Your task to perform on an android device: turn off picture-in-picture Image 0: 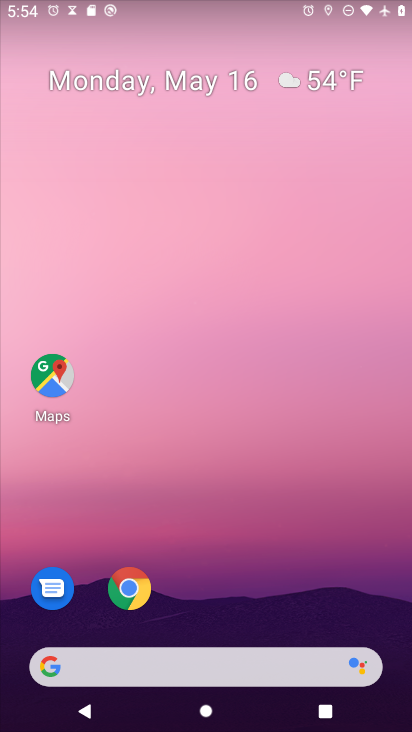
Step 0: drag from (248, 503) to (245, 131)
Your task to perform on an android device: turn off picture-in-picture Image 1: 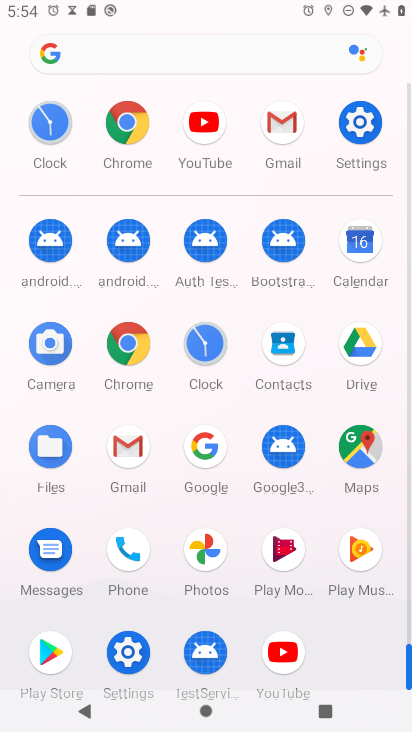
Step 1: drag from (7, 480) to (26, 176)
Your task to perform on an android device: turn off picture-in-picture Image 2: 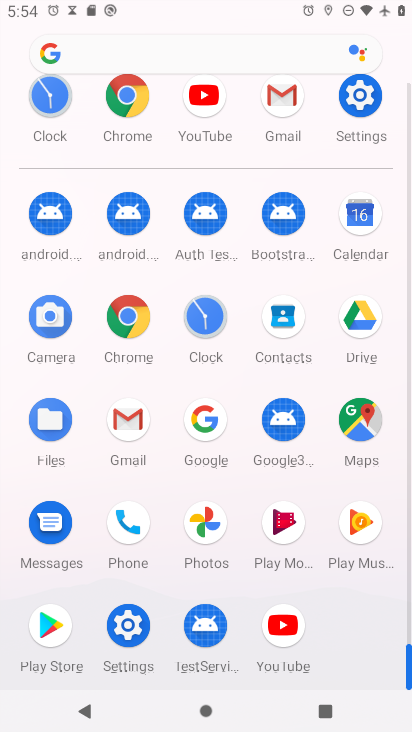
Step 2: click (125, 622)
Your task to perform on an android device: turn off picture-in-picture Image 3: 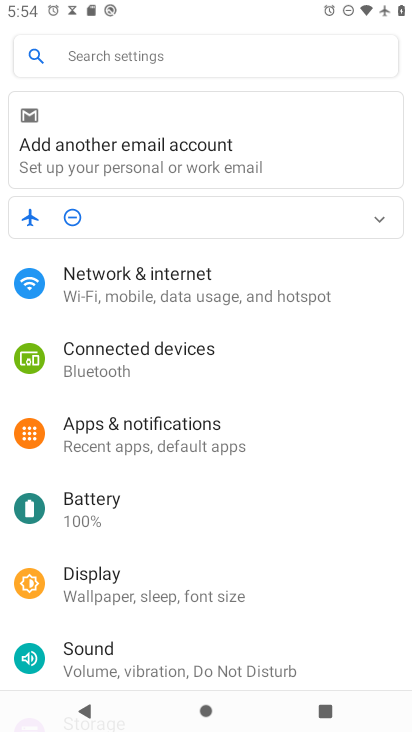
Step 3: click (166, 428)
Your task to perform on an android device: turn off picture-in-picture Image 4: 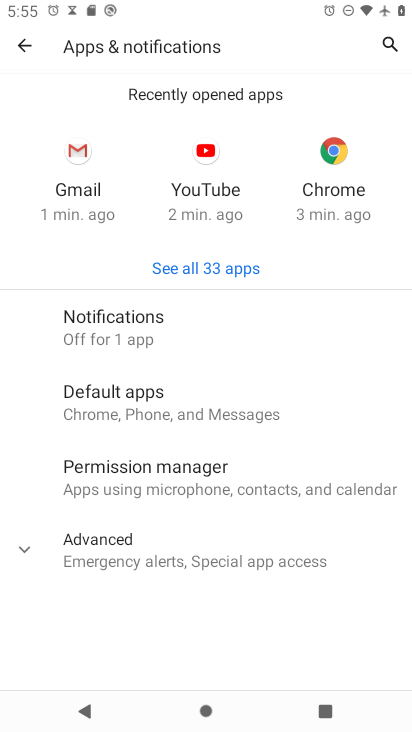
Step 4: click (61, 529)
Your task to perform on an android device: turn off picture-in-picture Image 5: 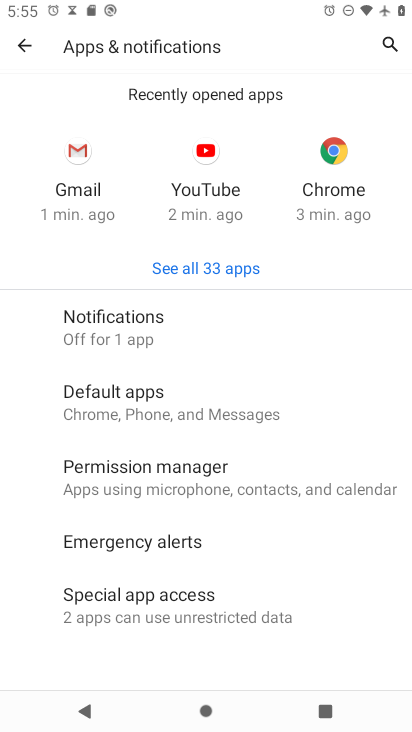
Step 5: drag from (284, 555) to (291, 259)
Your task to perform on an android device: turn off picture-in-picture Image 6: 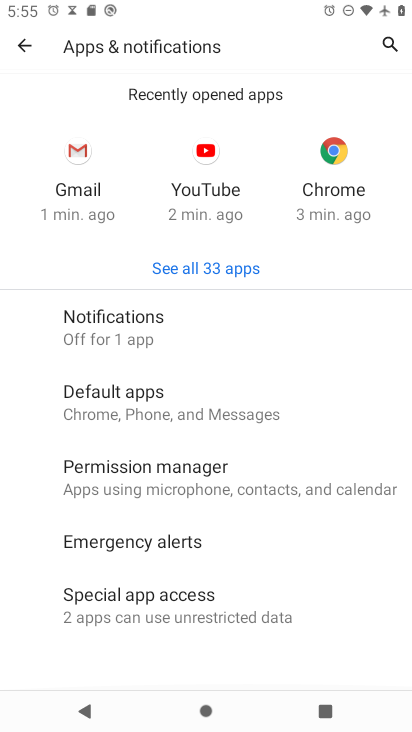
Step 6: click (171, 318)
Your task to perform on an android device: turn off picture-in-picture Image 7: 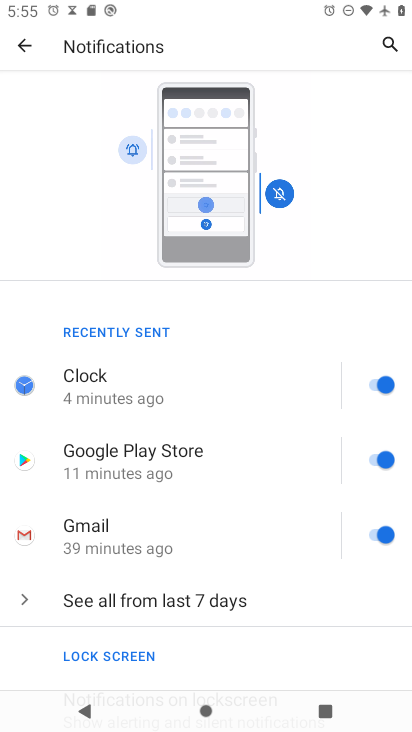
Step 7: click (22, 45)
Your task to perform on an android device: turn off picture-in-picture Image 8: 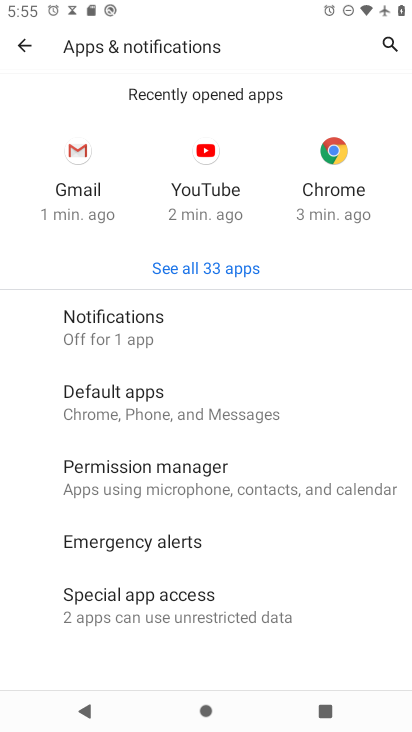
Step 8: click (142, 592)
Your task to perform on an android device: turn off picture-in-picture Image 9: 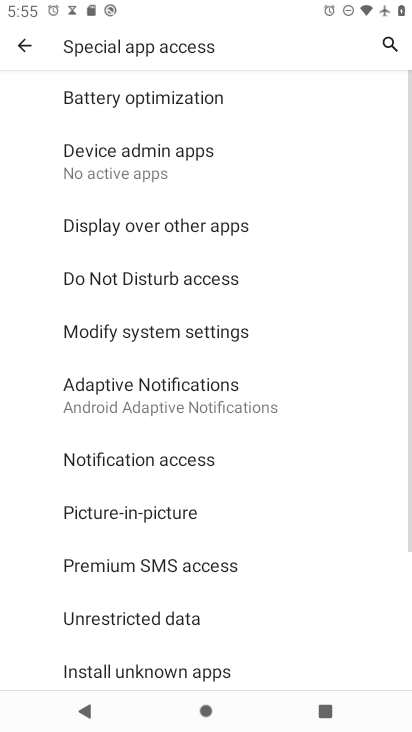
Step 9: click (185, 517)
Your task to perform on an android device: turn off picture-in-picture Image 10: 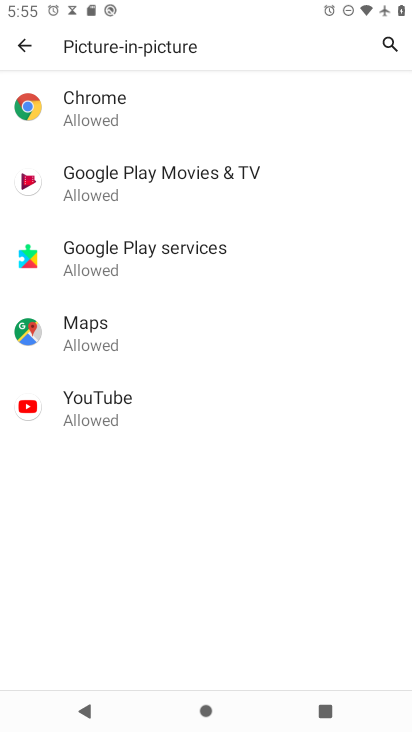
Step 10: click (155, 92)
Your task to perform on an android device: turn off picture-in-picture Image 11: 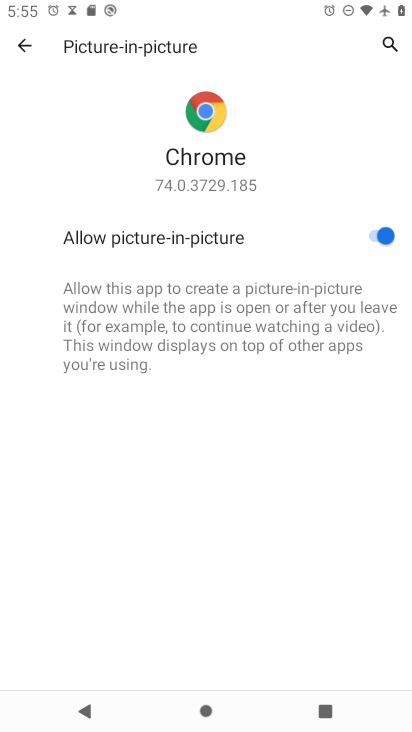
Step 11: click (382, 231)
Your task to perform on an android device: turn off picture-in-picture Image 12: 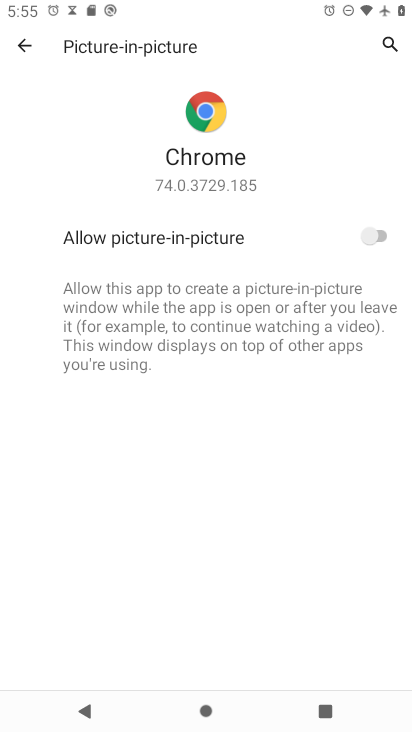
Step 12: click (23, 55)
Your task to perform on an android device: turn off picture-in-picture Image 13: 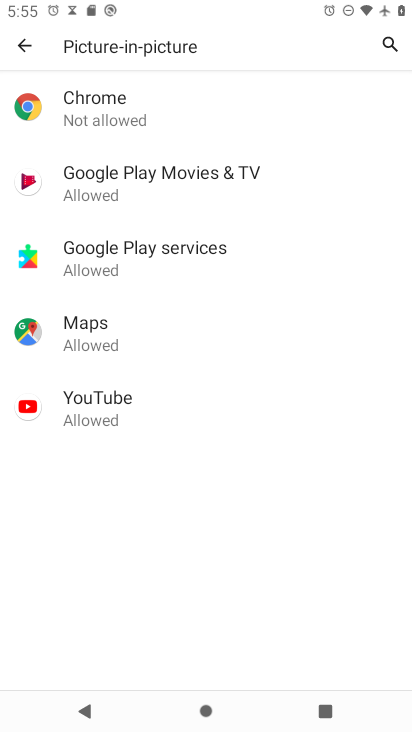
Step 13: click (128, 196)
Your task to perform on an android device: turn off picture-in-picture Image 14: 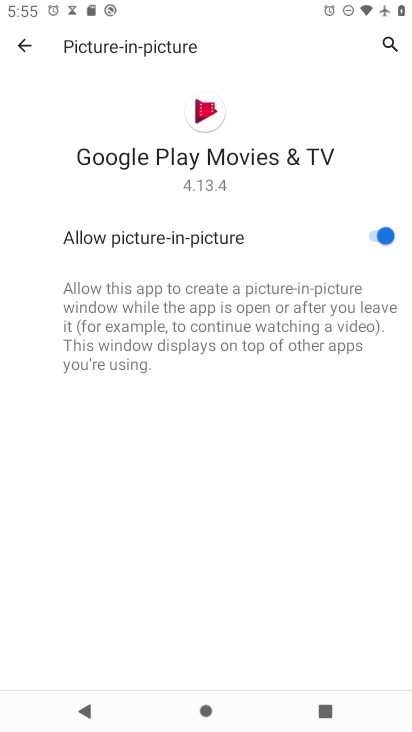
Step 14: click (367, 232)
Your task to perform on an android device: turn off picture-in-picture Image 15: 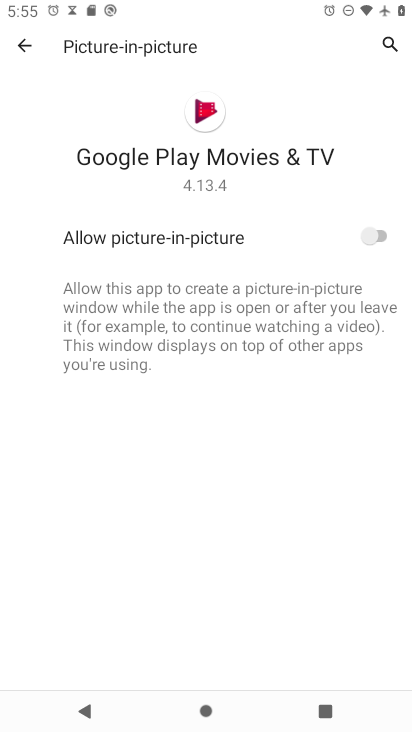
Step 15: click (26, 48)
Your task to perform on an android device: turn off picture-in-picture Image 16: 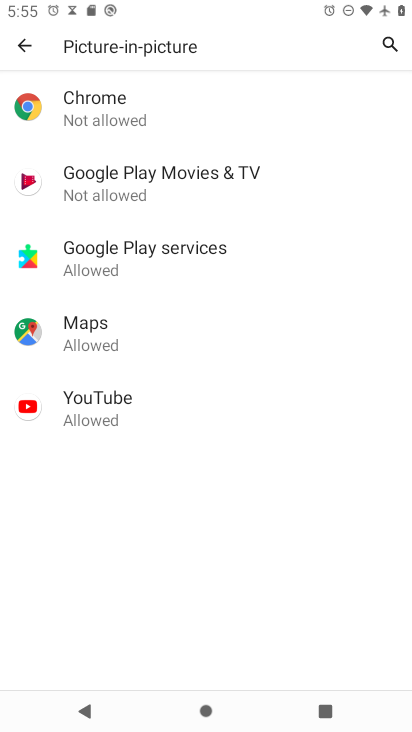
Step 16: click (95, 267)
Your task to perform on an android device: turn off picture-in-picture Image 17: 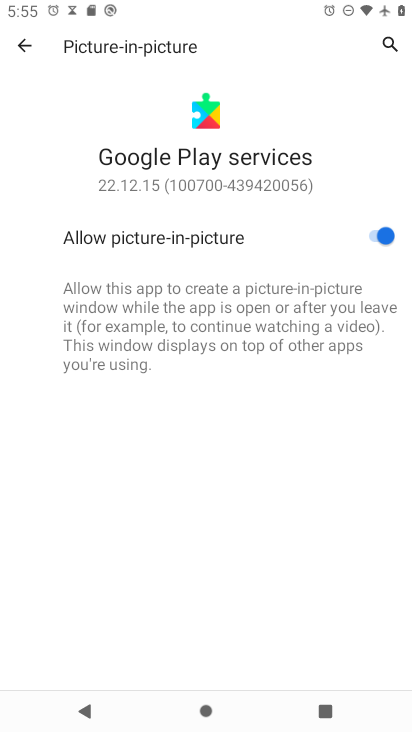
Step 17: click (377, 232)
Your task to perform on an android device: turn off picture-in-picture Image 18: 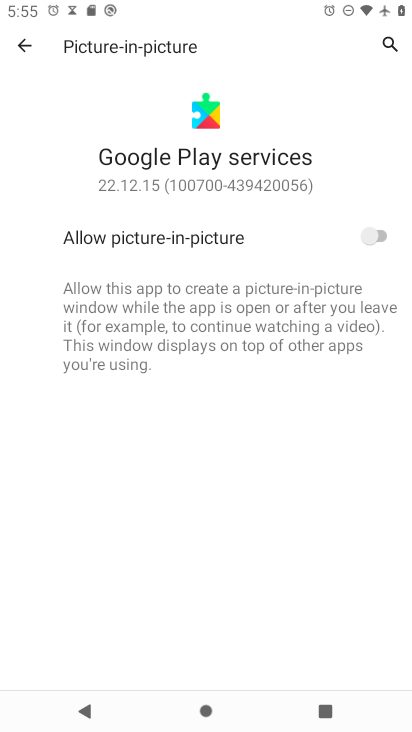
Step 18: click (20, 50)
Your task to perform on an android device: turn off picture-in-picture Image 19: 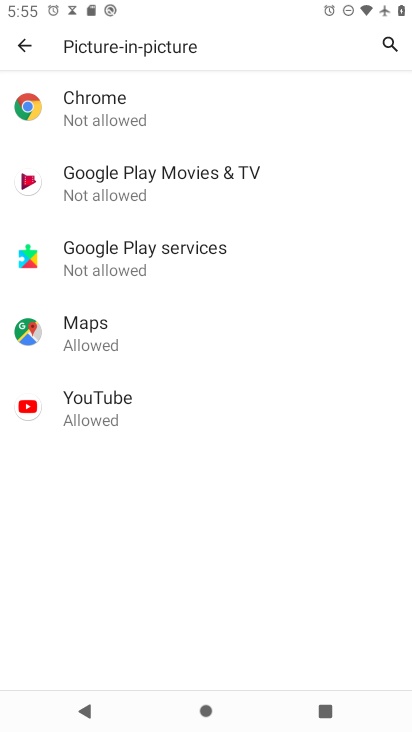
Step 19: click (60, 325)
Your task to perform on an android device: turn off picture-in-picture Image 20: 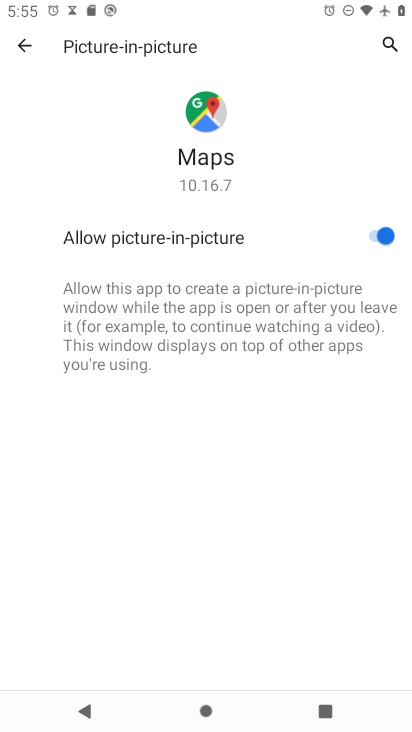
Step 20: click (370, 236)
Your task to perform on an android device: turn off picture-in-picture Image 21: 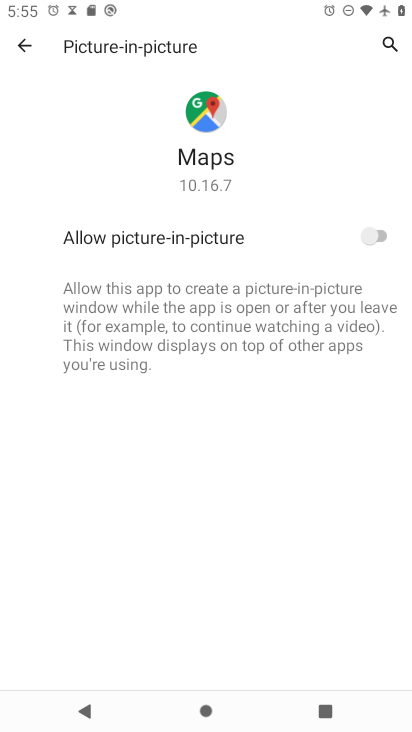
Step 21: click (23, 35)
Your task to perform on an android device: turn off picture-in-picture Image 22: 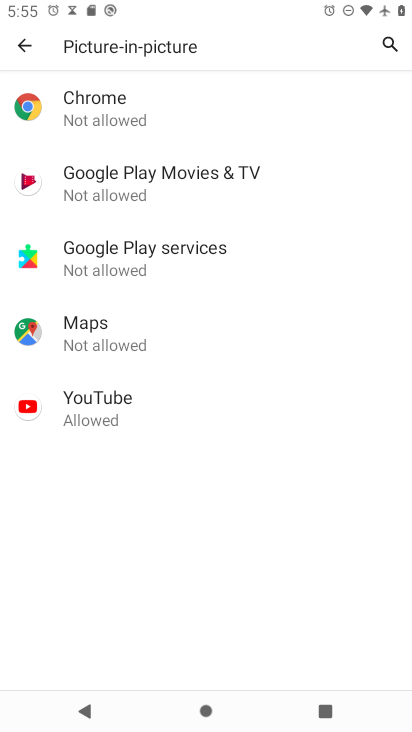
Step 22: click (68, 402)
Your task to perform on an android device: turn off picture-in-picture Image 23: 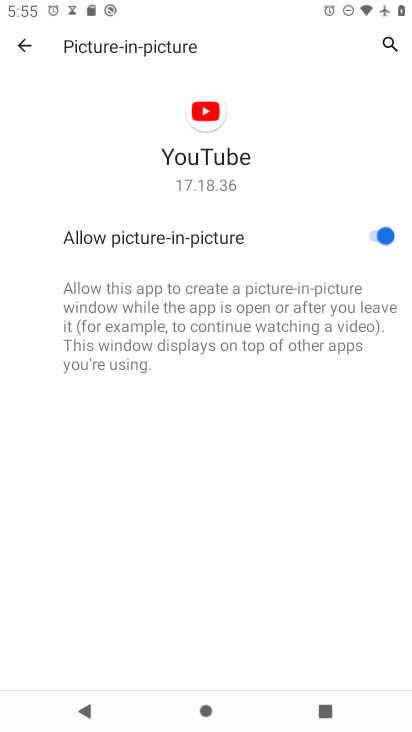
Step 23: click (378, 241)
Your task to perform on an android device: turn off picture-in-picture Image 24: 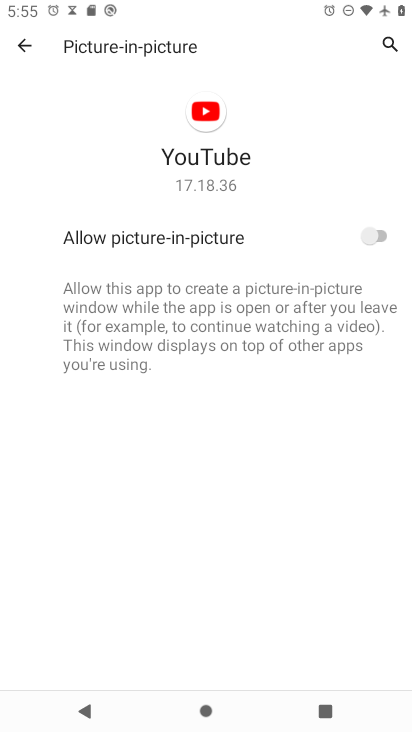
Step 24: click (25, 43)
Your task to perform on an android device: turn off picture-in-picture Image 25: 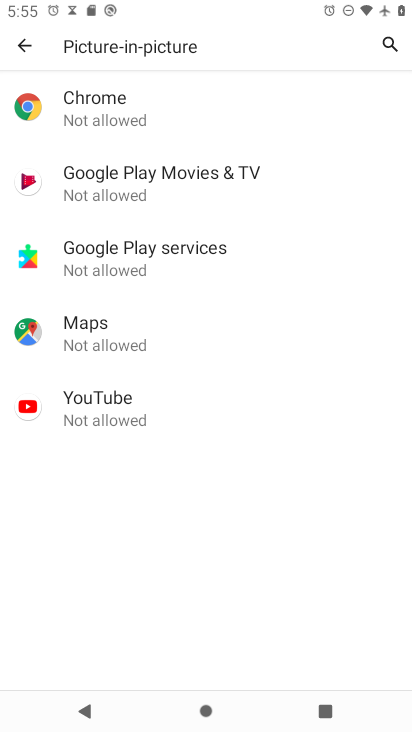
Step 25: task complete